Your task to perform on an android device: toggle show notifications on the lock screen Image 0: 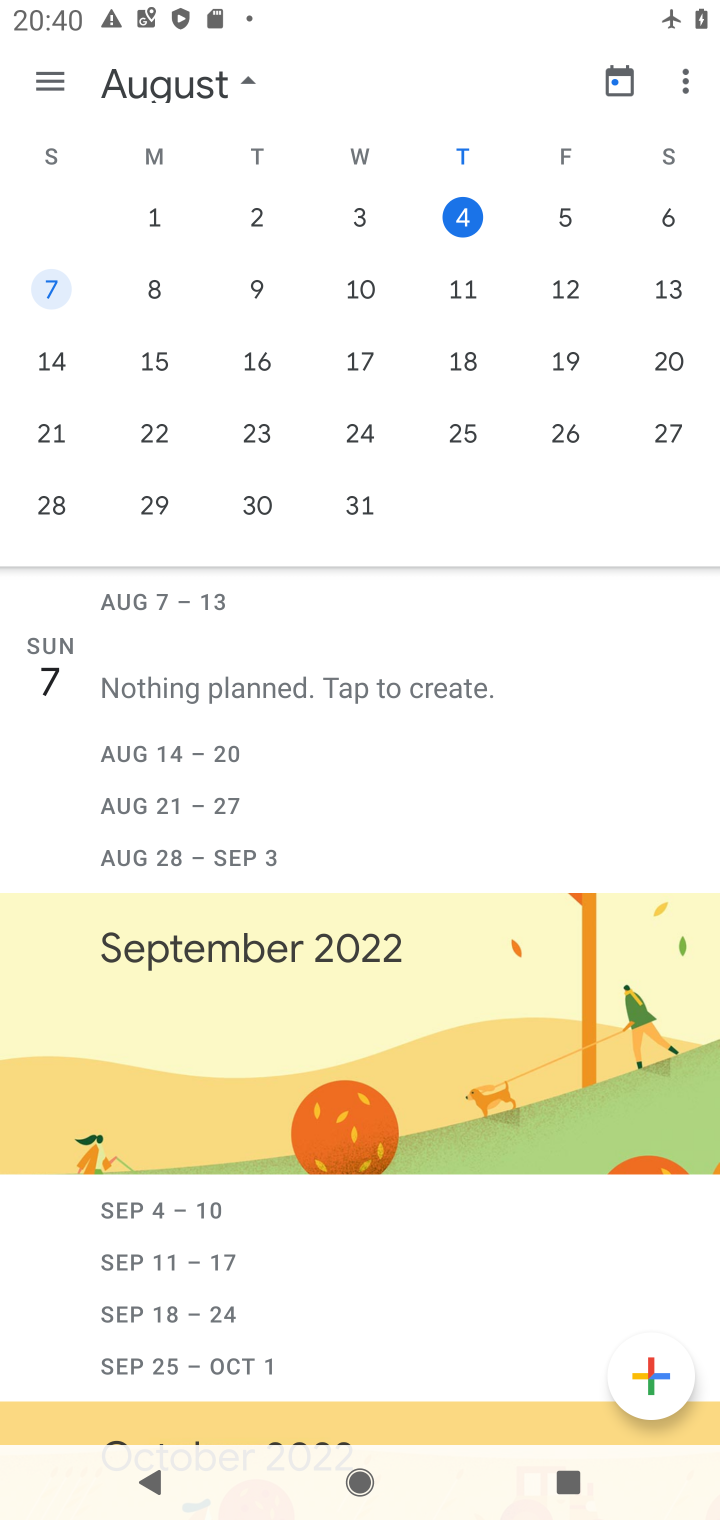
Step 0: press home button
Your task to perform on an android device: toggle show notifications on the lock screen Image 1: 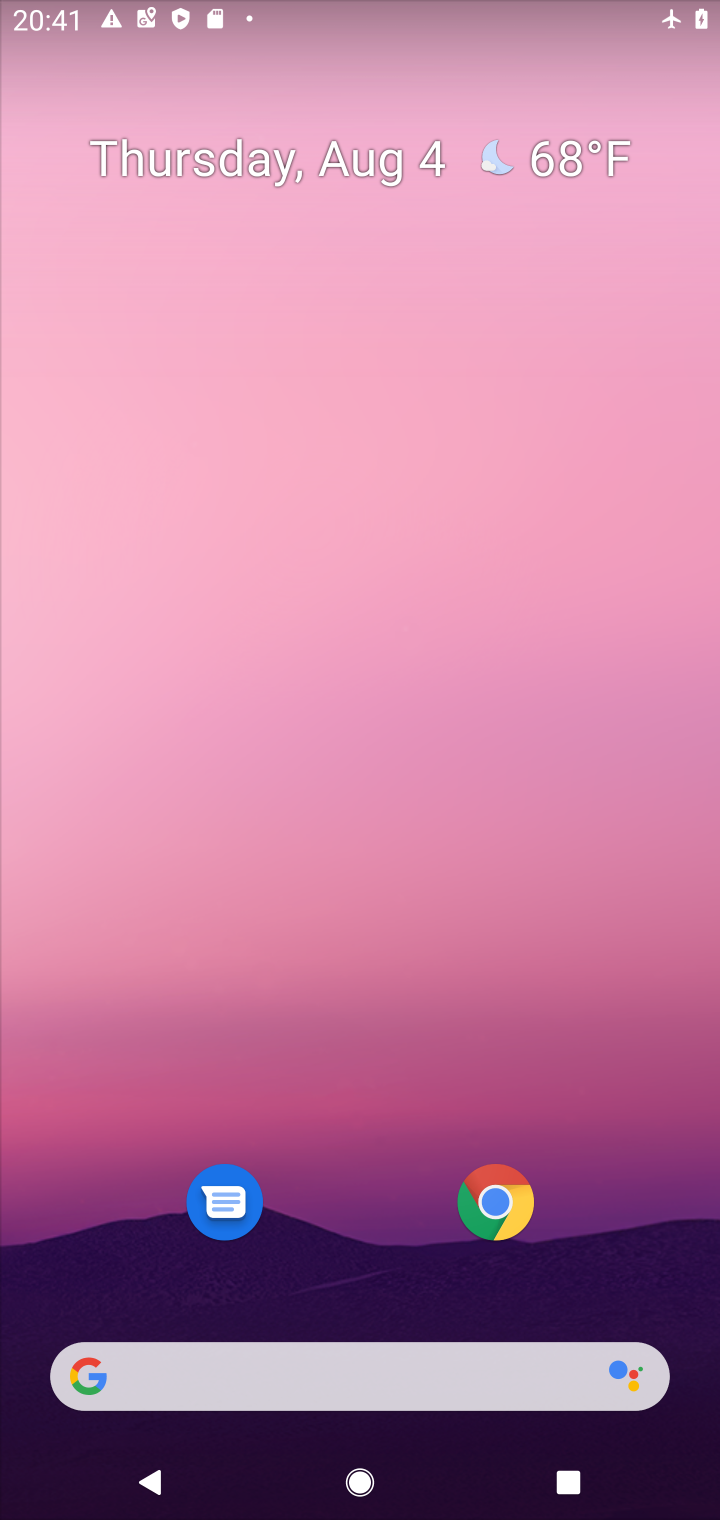
Step 1: drag from (380, 1273) to (310, 393)
Your task to perform on an android device: toggle show notifications on the lock screen Image 2: 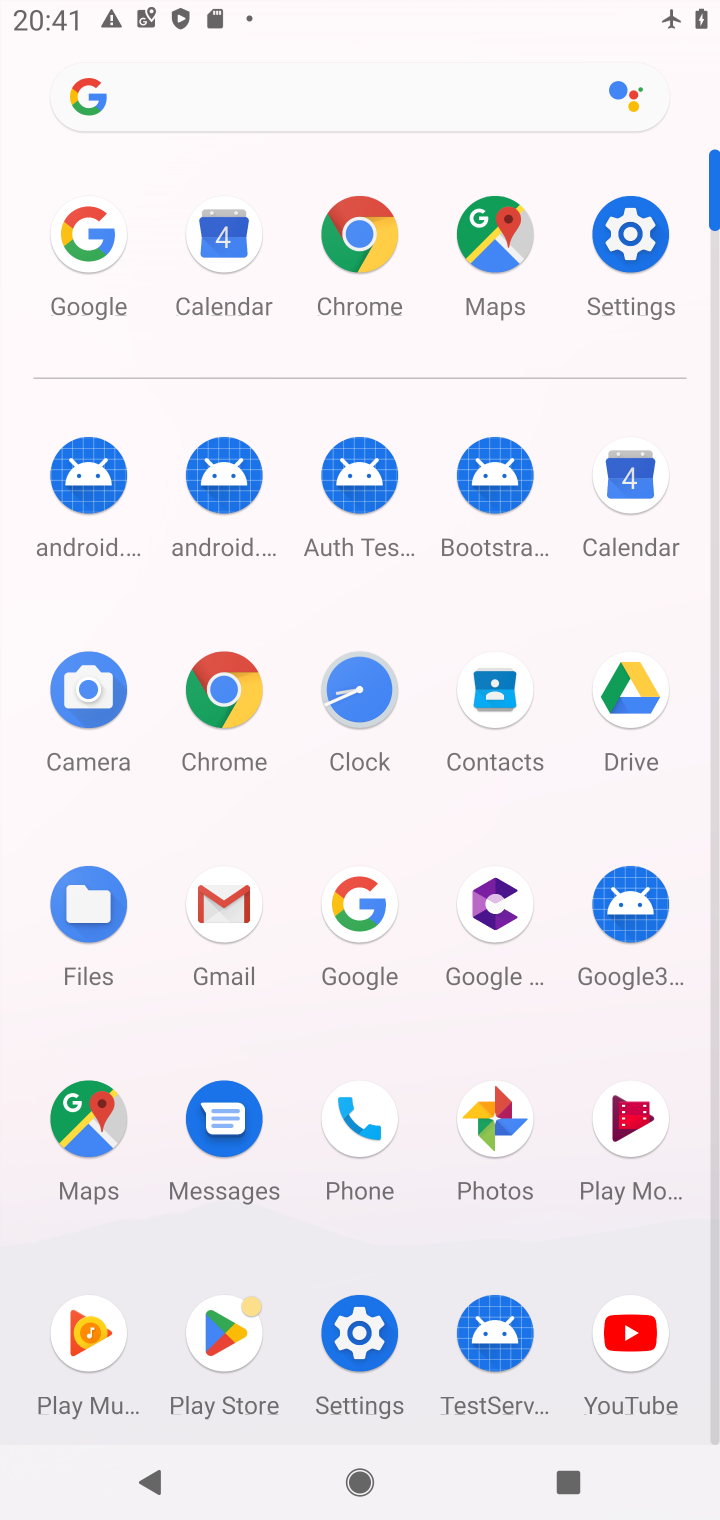
Step 2: drag from (325, 1267) to (373, 843)
Your task to perform on an android device: toggle show notifications on the lock screen Image 3: 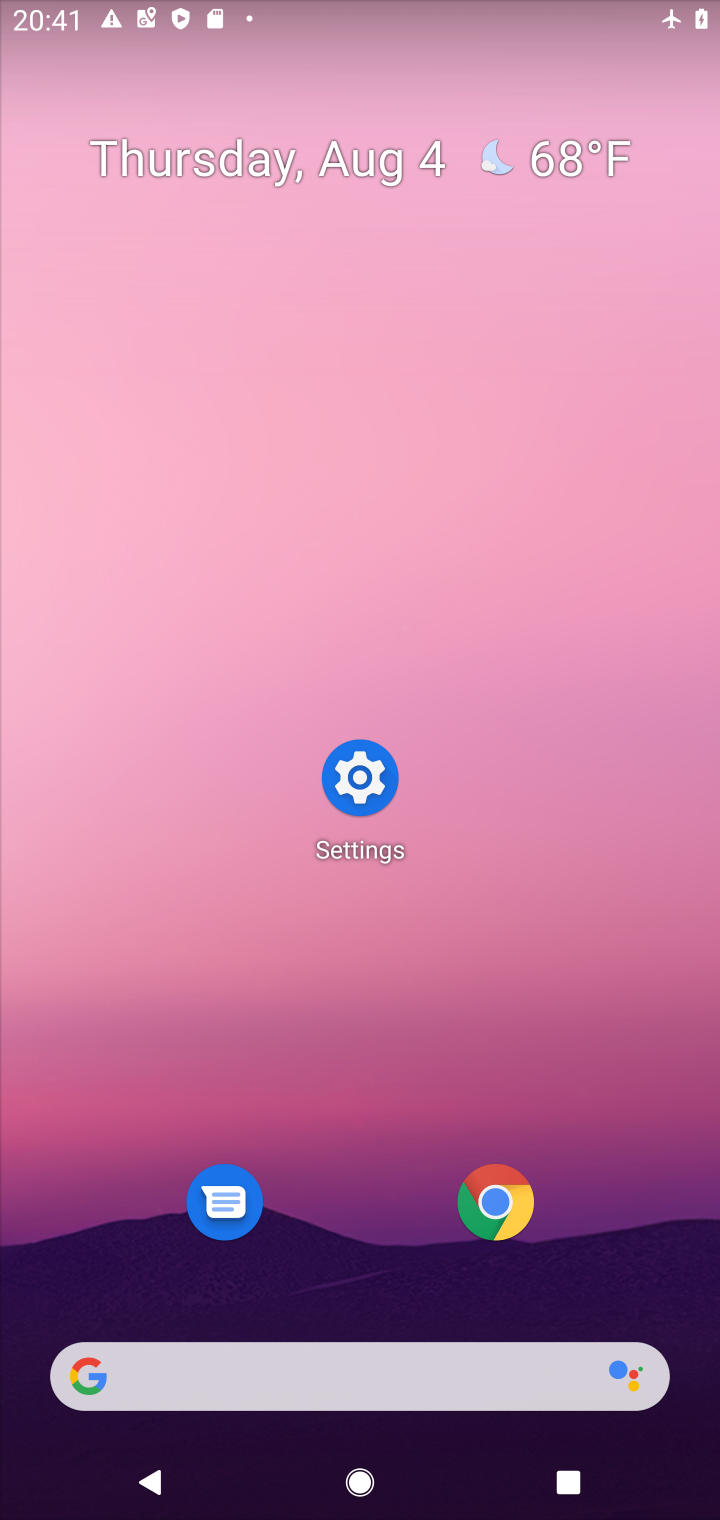
Step 3: drag from (365, 1081) to (340, 165)
Your task to perform on an android device: toggle show notifications on the lock screen Image 4: 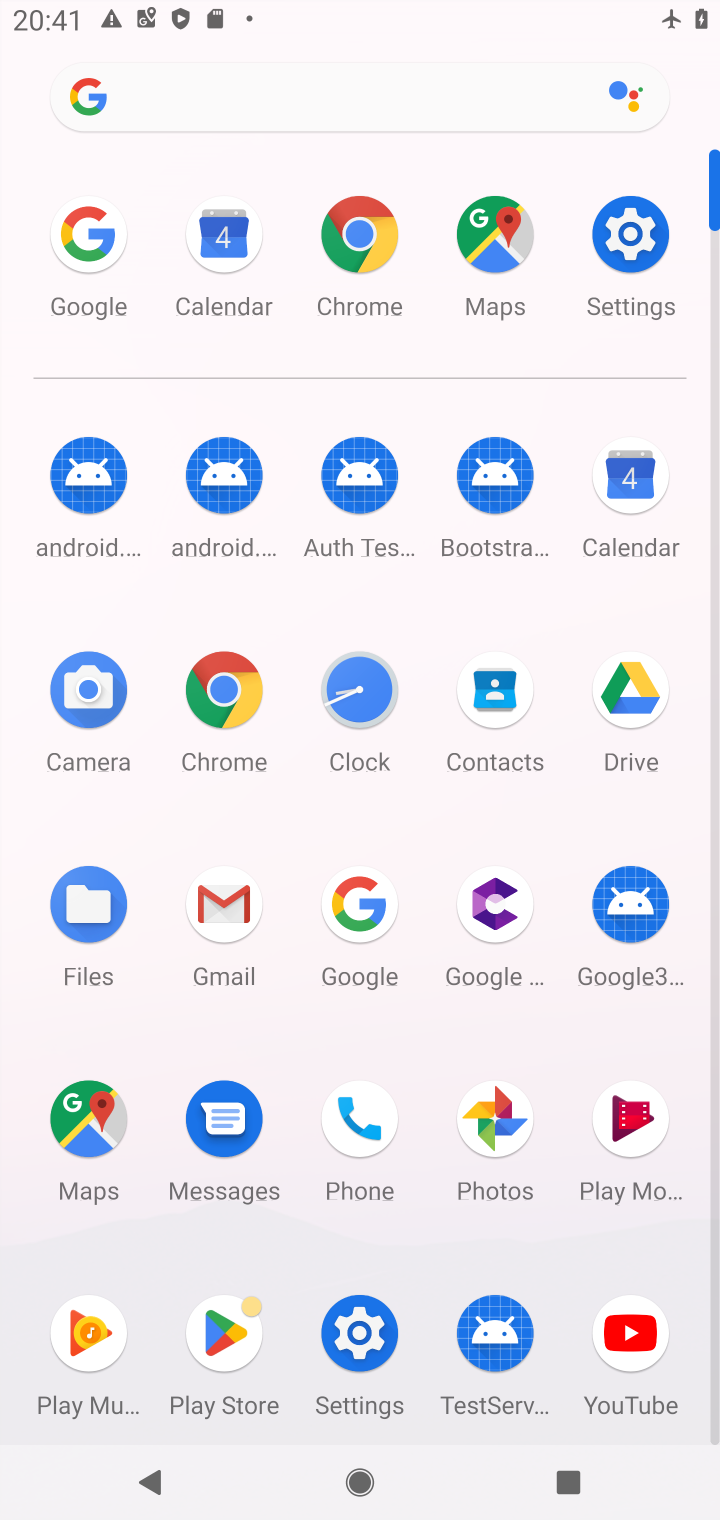
Step 4: click (629, 233)
Your task to perform on an android device: toggle show notifications on the lock screen Image 5: 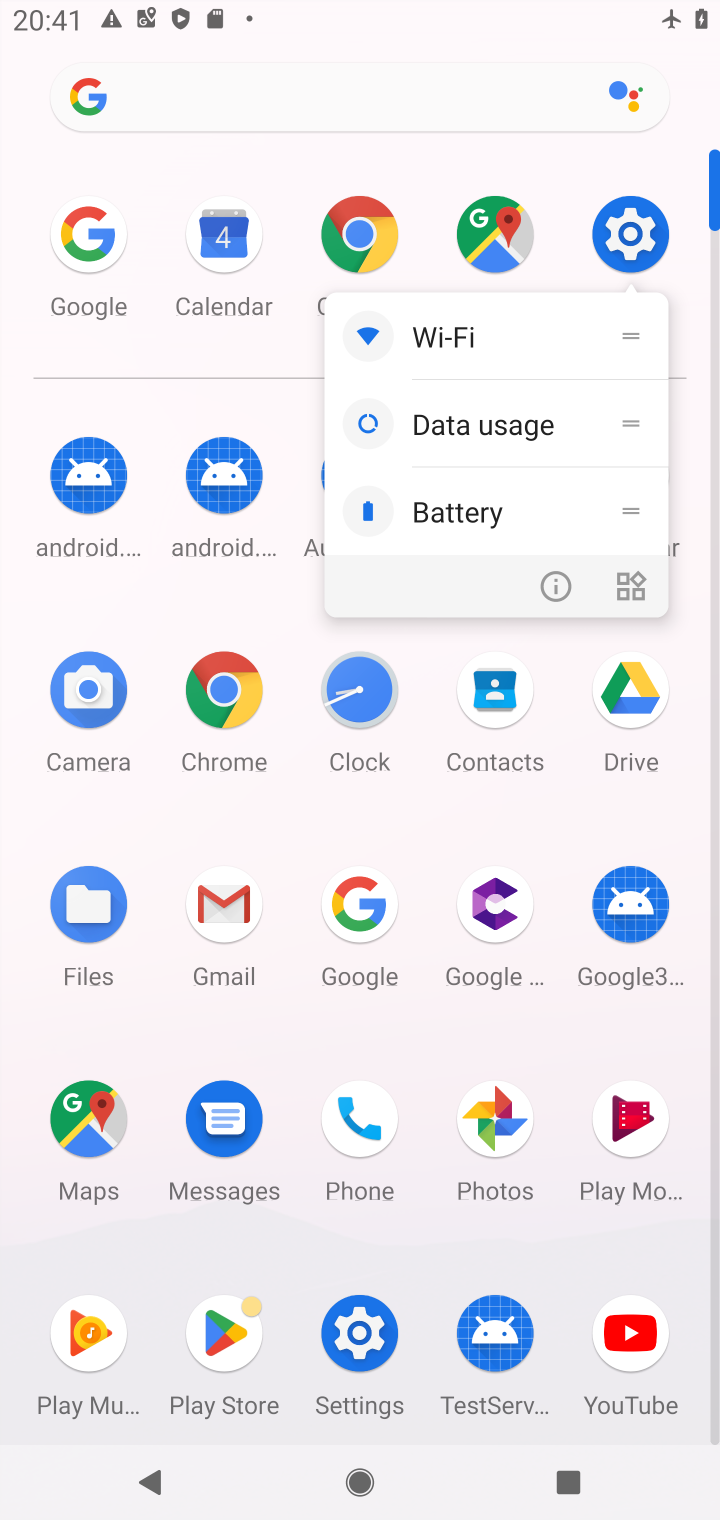
Step 5: click (629, 233)
Your task to perform on an android device: toggle show notifications on the lock screen Image 6: 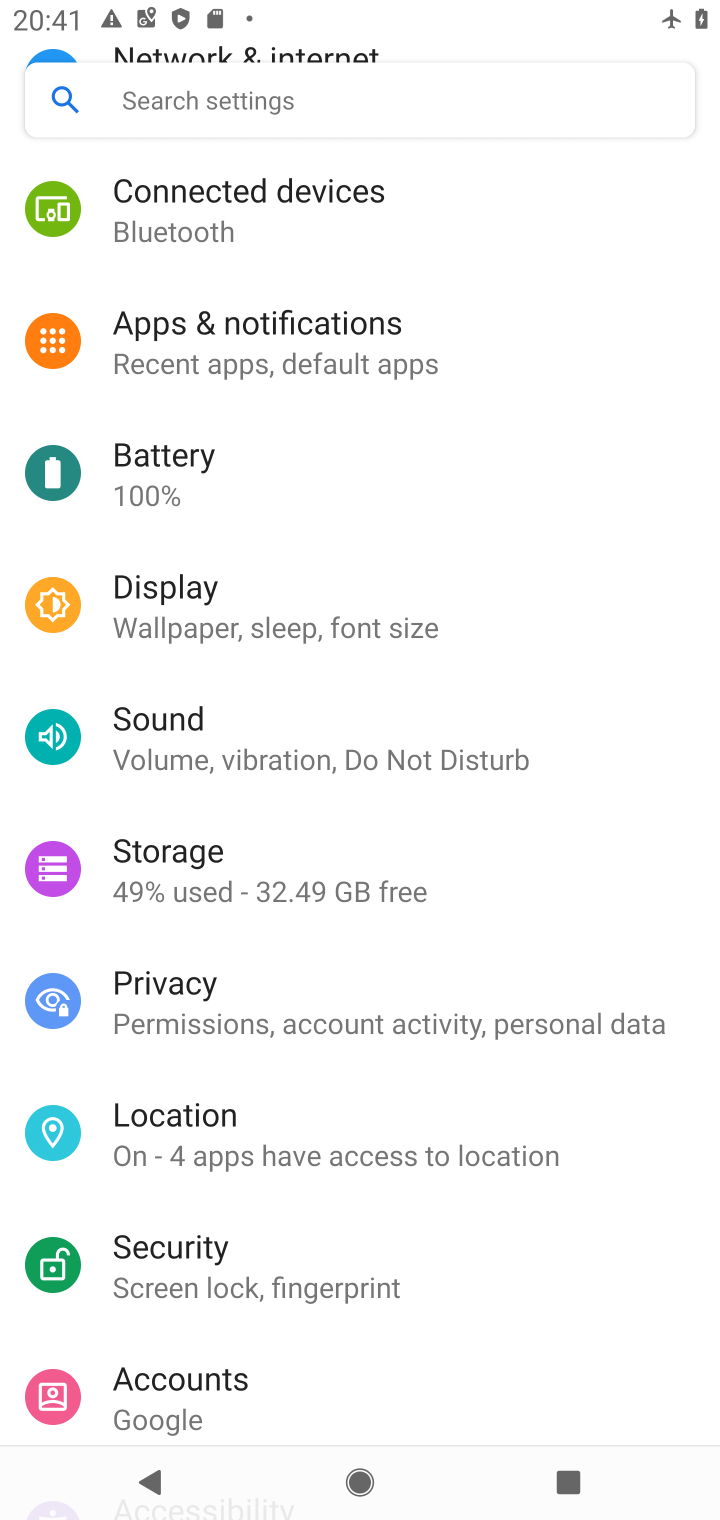
Step 6: click (367, 388)
Your task to perform on an android device: toggle show notifications on the lock screen Image 7: 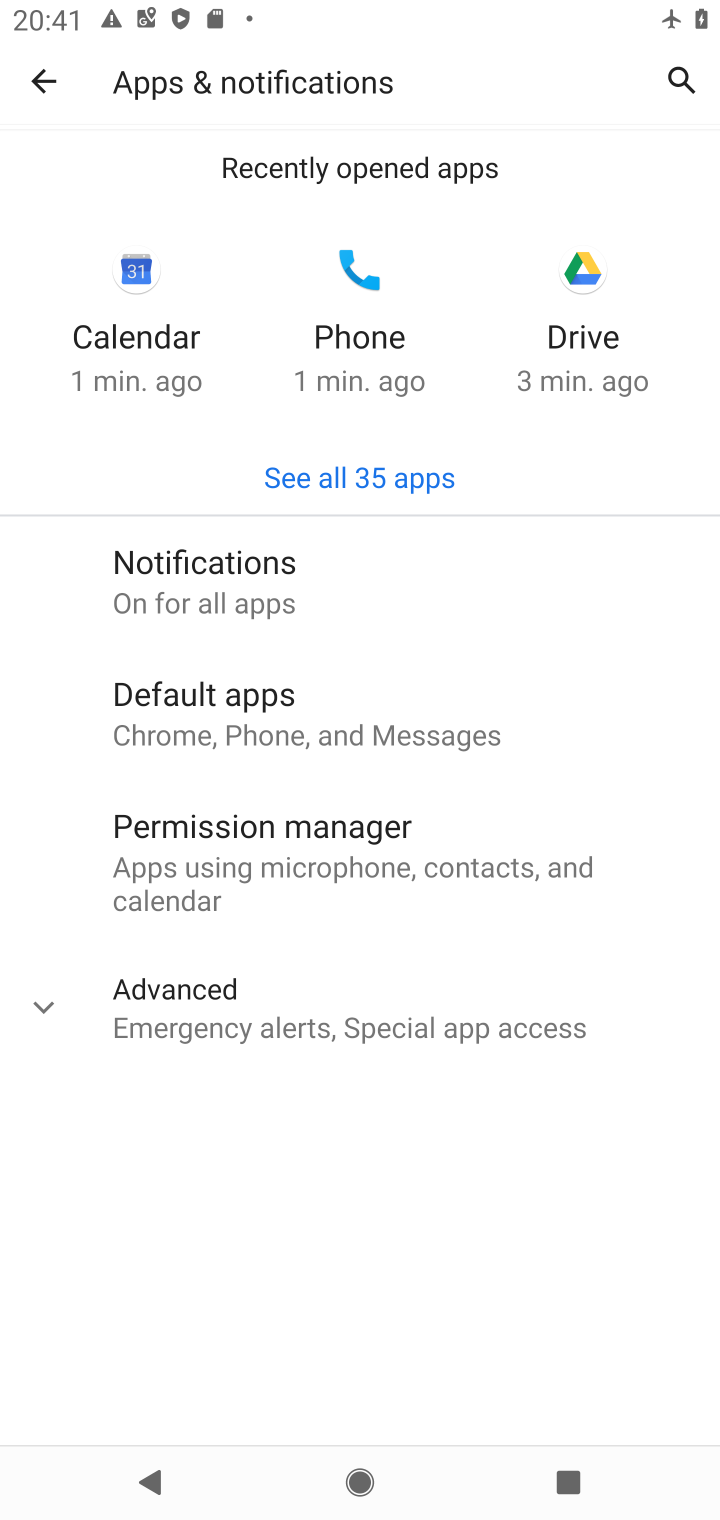
Step 7: click (288, 337)
Your task to perform on an android device: toggle show notifications on the lock screen Image 8: 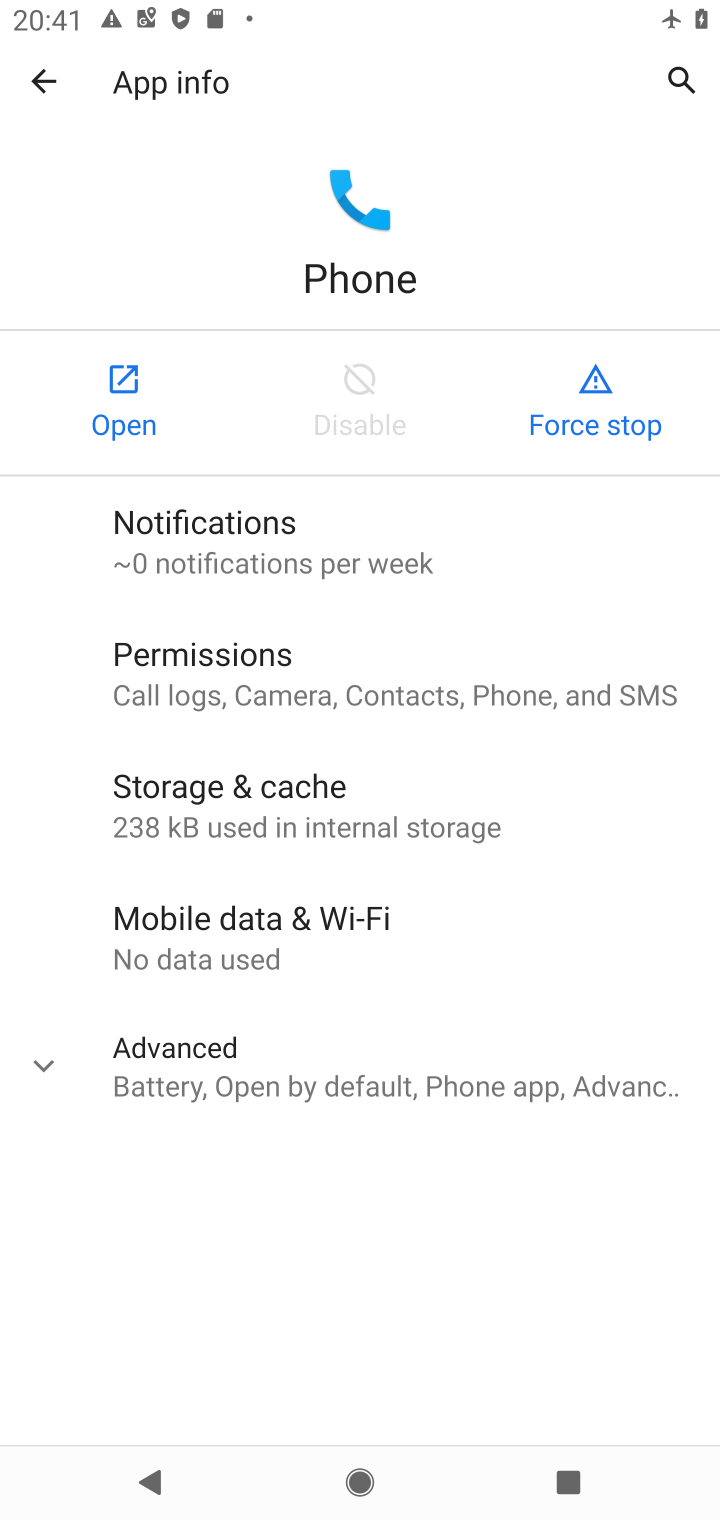
Step 8: click (30, 101)
Your task to perform on an android device: toggle show notifications on the lock screen Image 9: 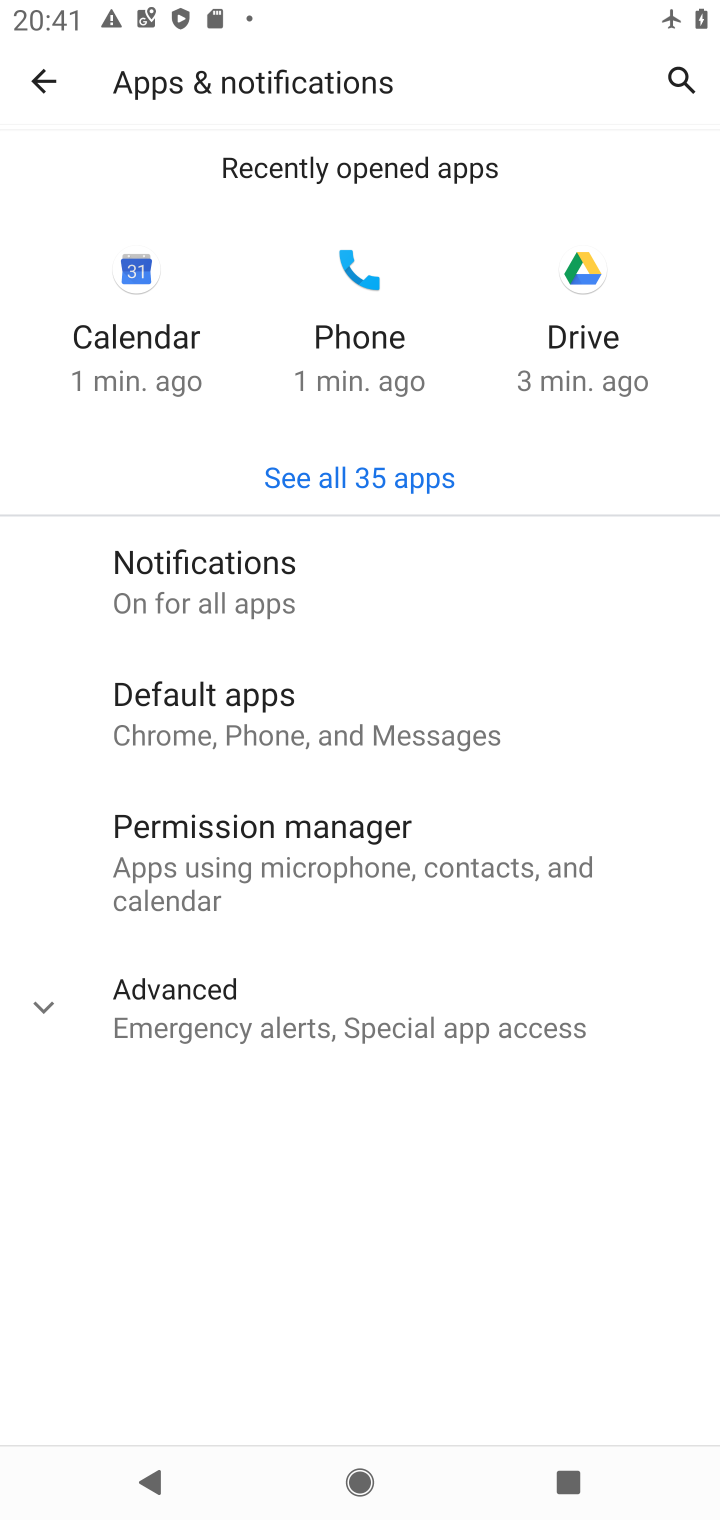
Step 9: click (257, 593)
Your task to perform on an android device: toggle show notifications on the lock screen Image 10: 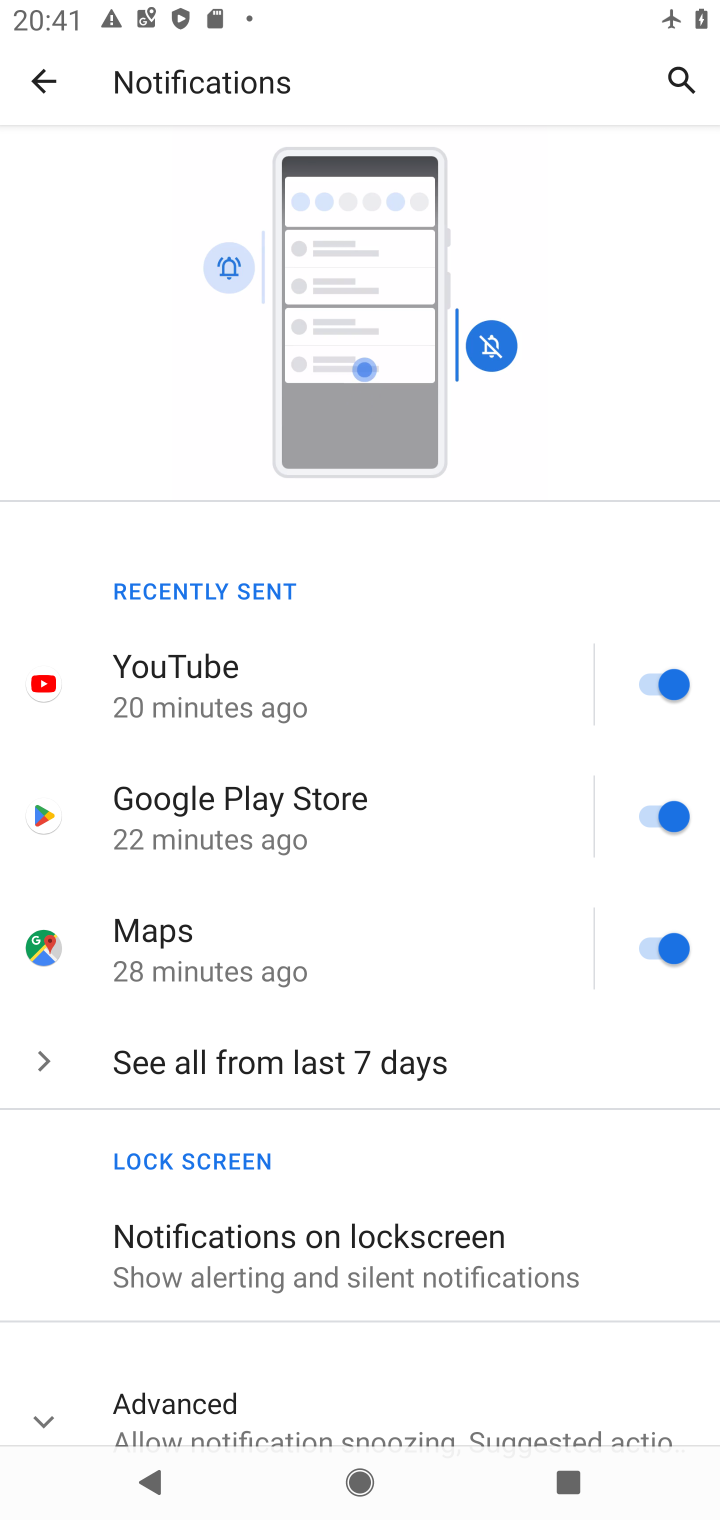
Step 10: click (404, 1220)
Your task to perform on an android device: toggle show notifications on the lock screen Image 11: 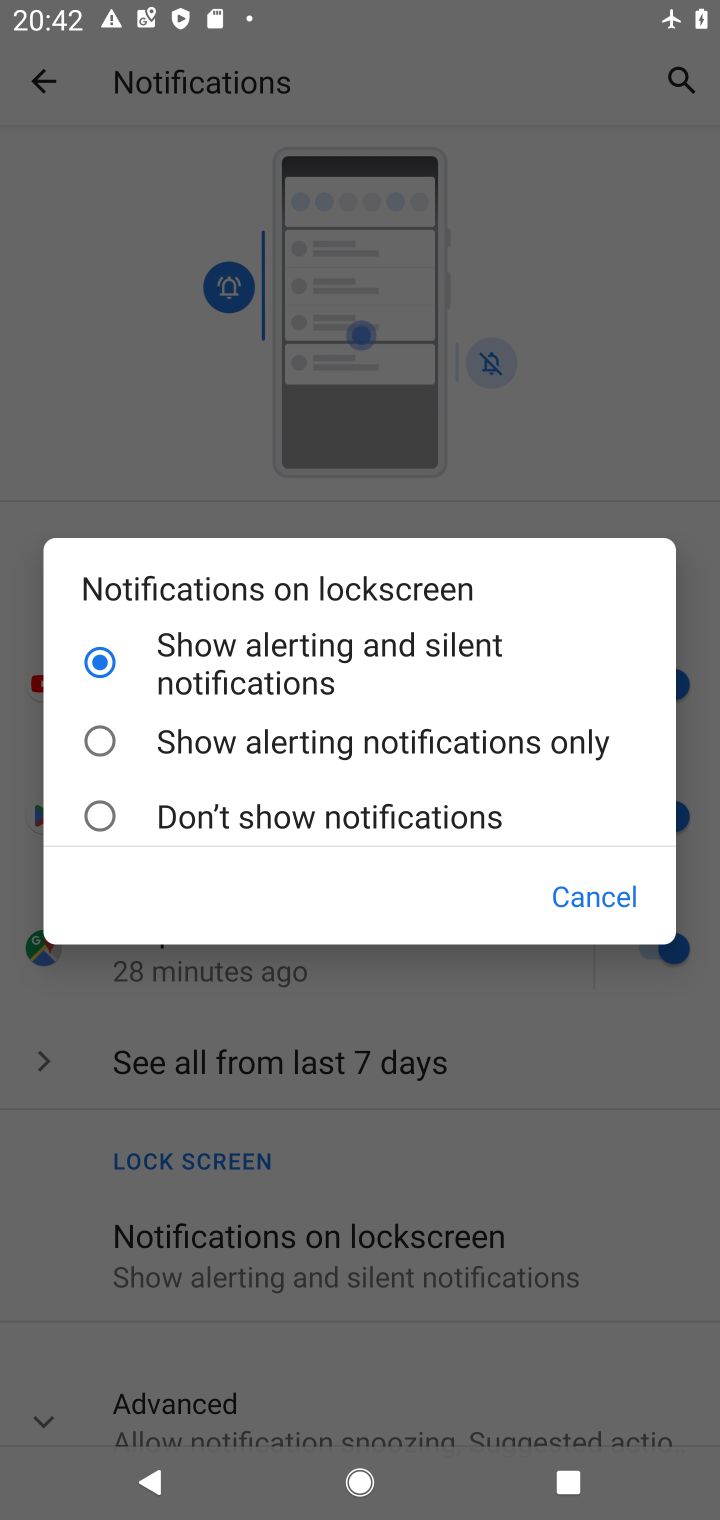
Step 11: click (234, 806)
Your task to perform on an android device: toggle show notifications on the lock screen Image 12: 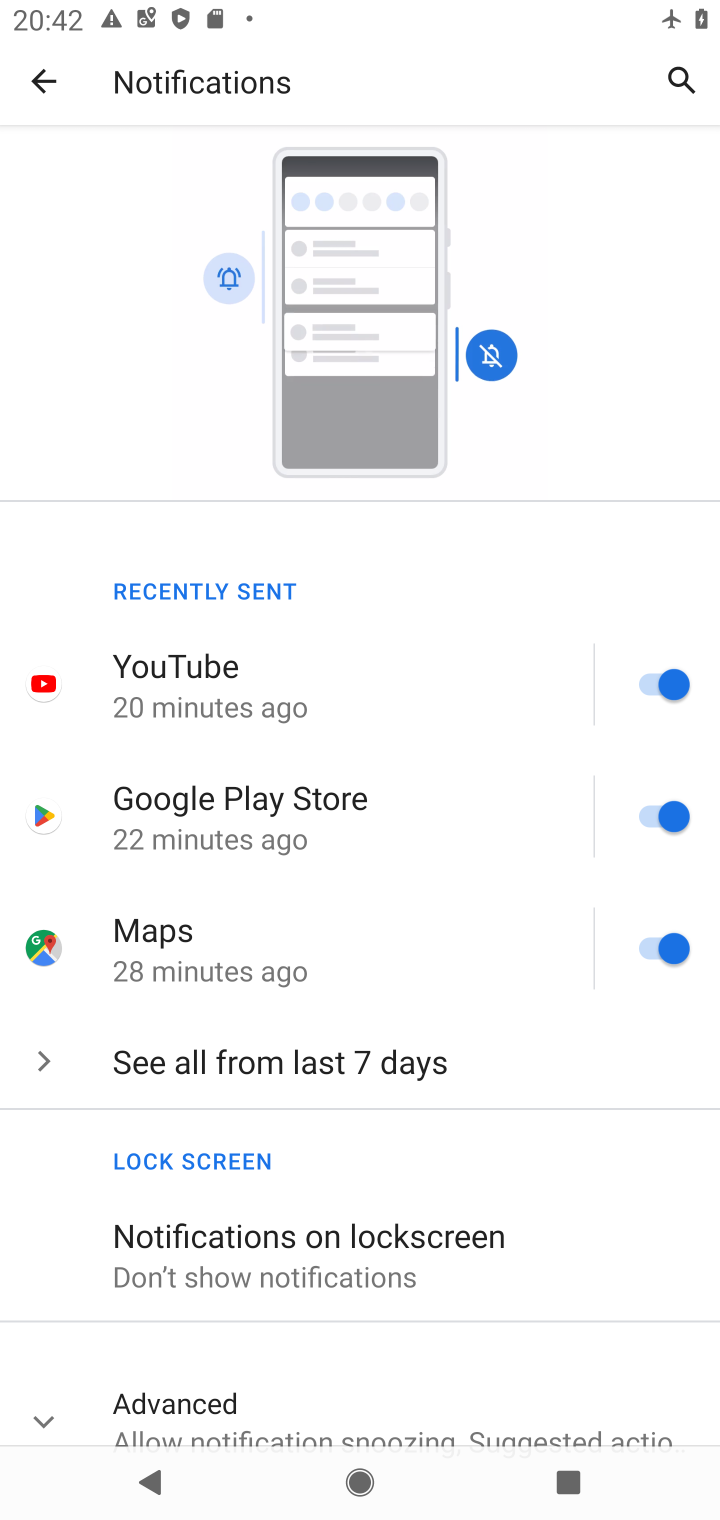
Step 12: task complete